Your task to perform on an android device: turn on showing notifications on the lock screen Image 0: 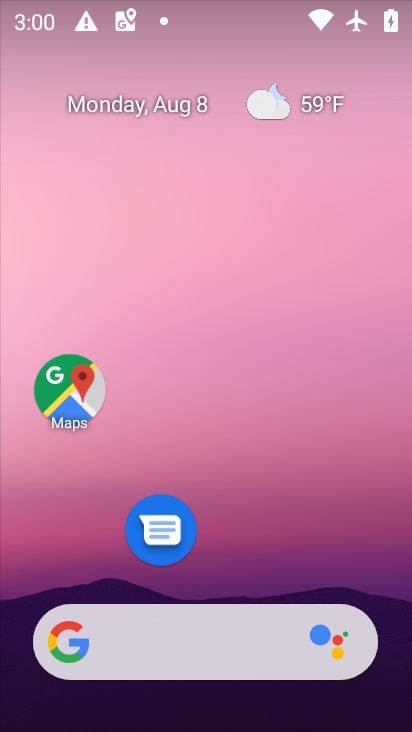
Step 0: drag from (224, 547) to (201, 65)
Your task to perform on an android device: turn on showing notifications on the lock screen Image 1: 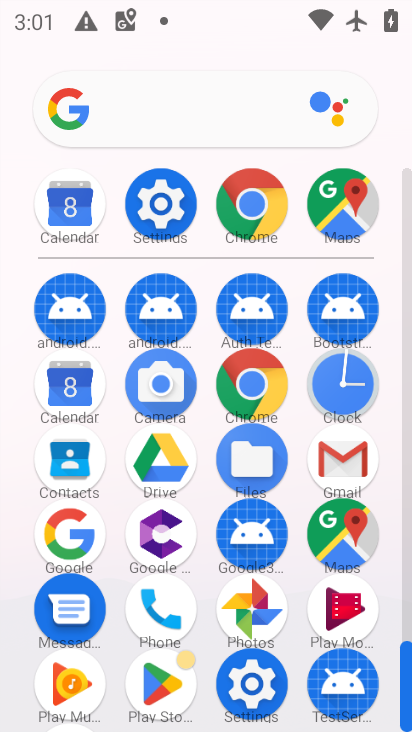
Step 1: click (159, 205)
Your task to perform on an android device: turn on showing notifications on the lock screen Image 2: 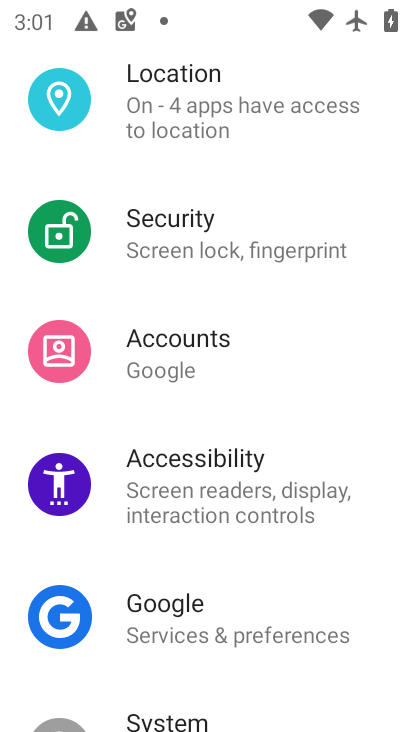
Step 2: drag from (166, 200) to (174, 618)
Your task to perform on an android device: turn on showing notifications on the lock screen Image 3: 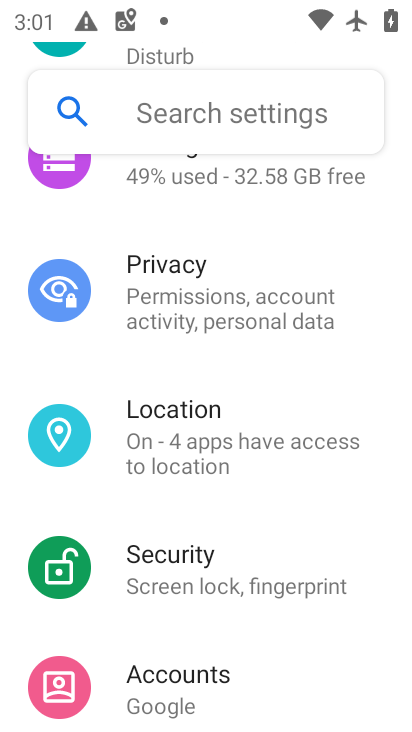
Step 3: drag from (228, 255) to (224, 593)
Your task to perform on an android device: turn on showing notifications on the lock screen Image 4: 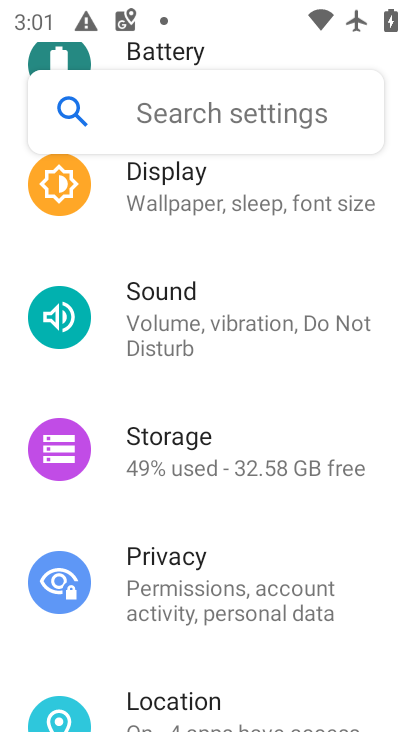
Step 4: drag from (174, 254) to (172, 549)
Your task to perform on an android device: turn on showing notifications on the lock screen Image 5: 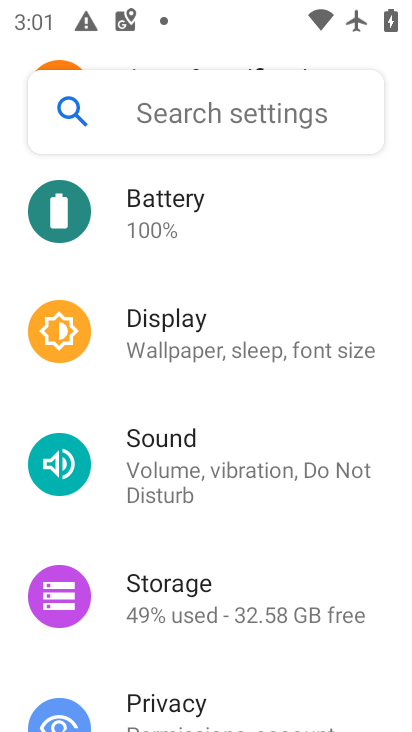
Step 5: drag from (223, 194) to (220, 597)
Your task to perform on an android device: turn on showing notifications on the lock screen Image 6: 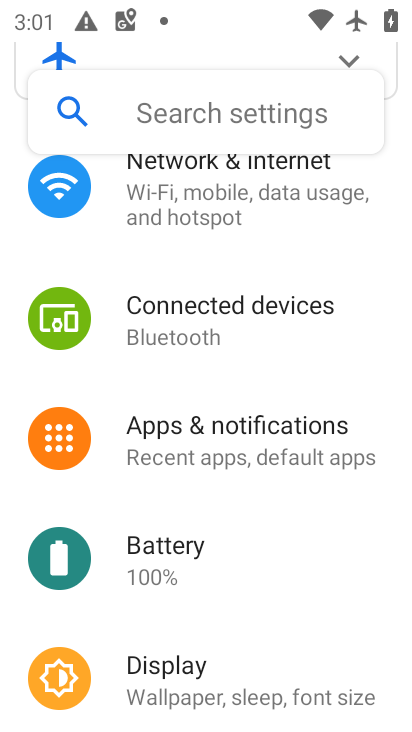
Step 6: click (194, 418)
Your task to perform on an android device: turn on showing notifications on the lock screen Image 7: 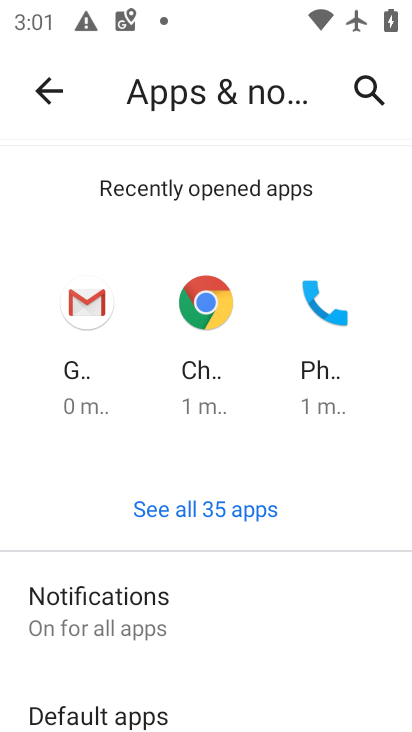
Step 7: click (128, 603)
Your task to perform on an android device: turn on showing notifications on the lock screen Image 8: 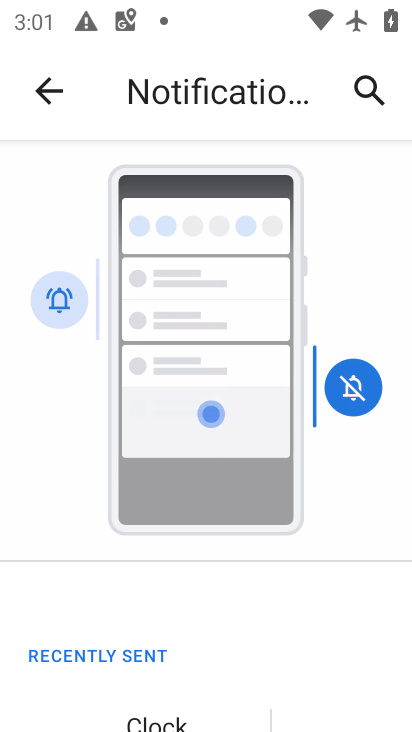
Step 8: task complete